Your task to perform on an android device: change the clock style Image 0: 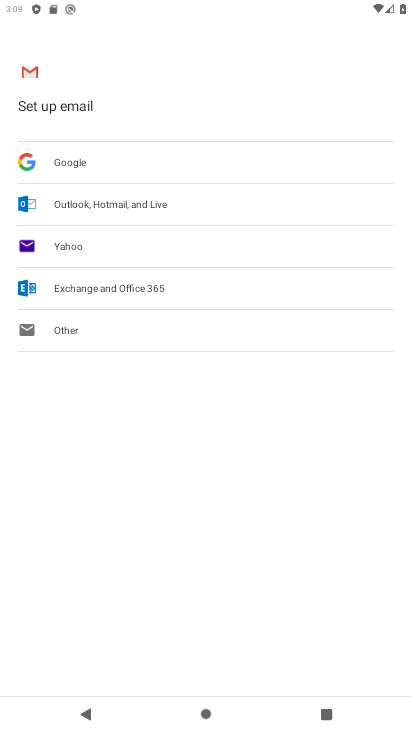
Step 0: press home button
Your task to perform on an android device: change the clock style Image 1: 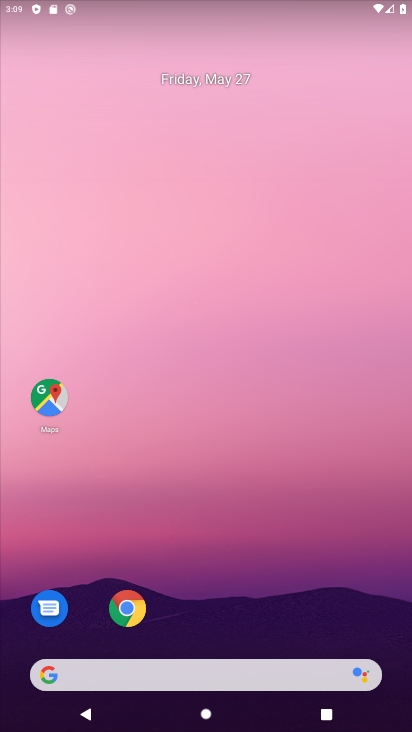
Step 1: drag from (194, 658) to (229, 294)
Your task to perform on an android device: change the clock style Image 2: 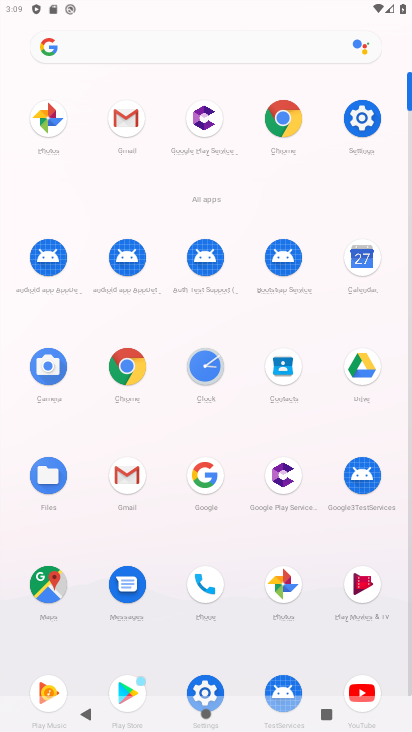
Step 2: click (194, 369)
Your task to perform on an android device: change the clock style Image 3: 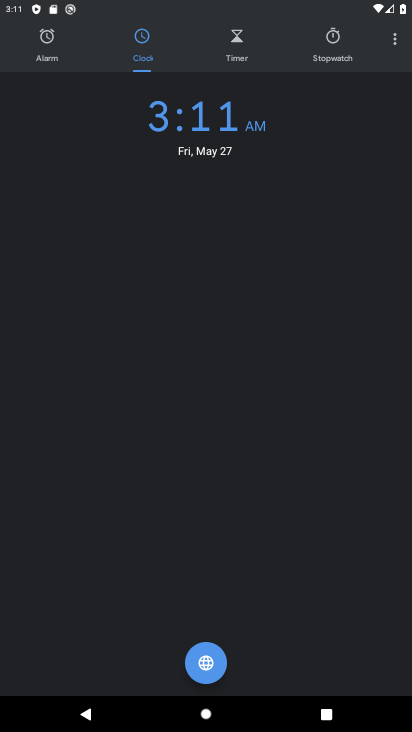
Step 3: click (404, 46)
Your task to perform on an android device: change the clock style Image 4: 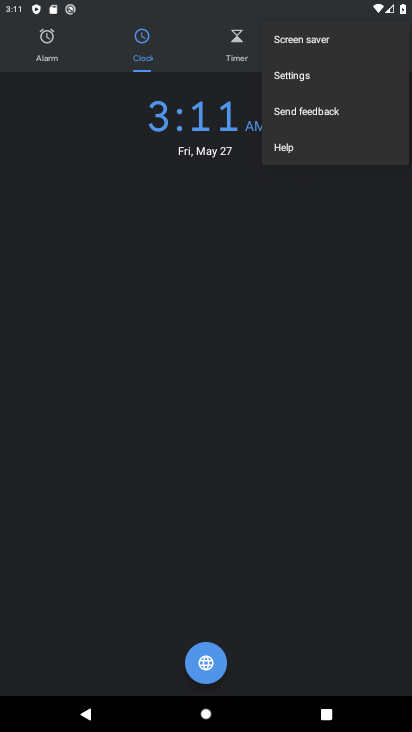
Step 4: click (311, 75)
Your task to perform on an android device: change the clock style Image 5: 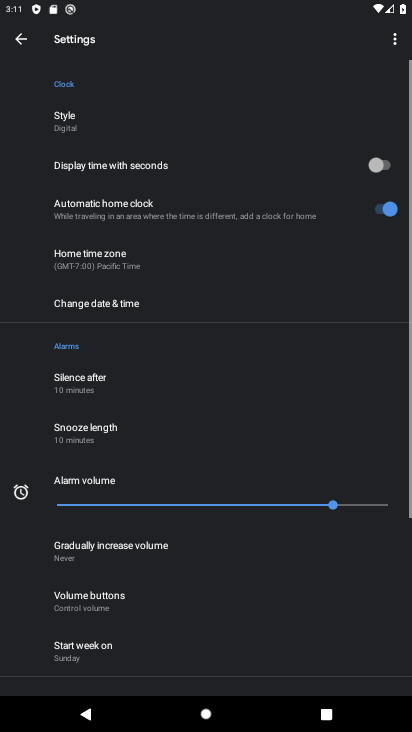
Step 5: click (92, 125)
Your task to perform on an android device: change the clock style Image 6: 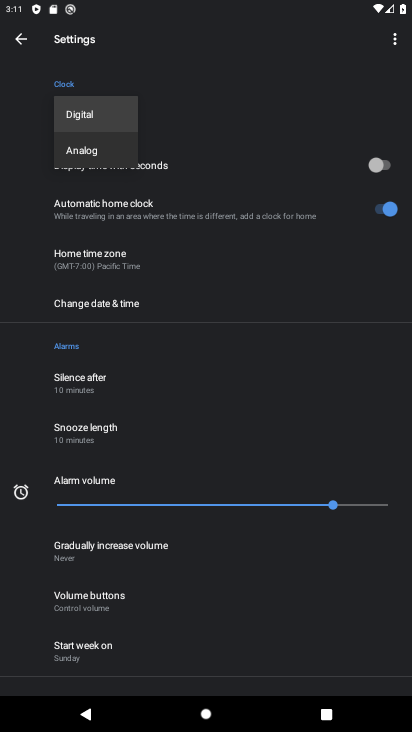
Step 6: click (95, 159)
Your task to perform on an android device: change the clock style Image 7: 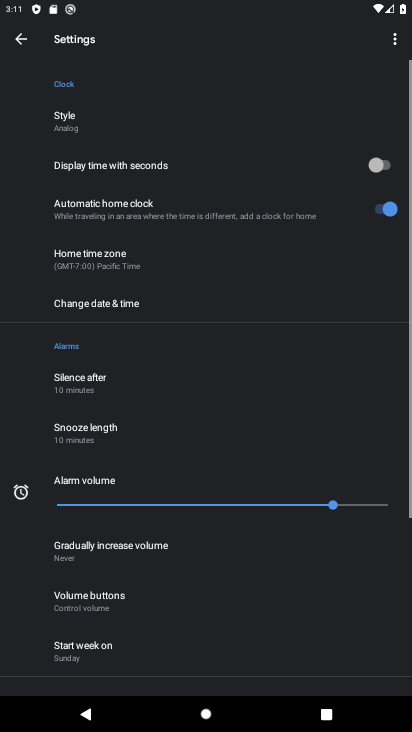
Step 7: task complete